Your task to perform on an android device: turn off improve location accuracy Image 0: 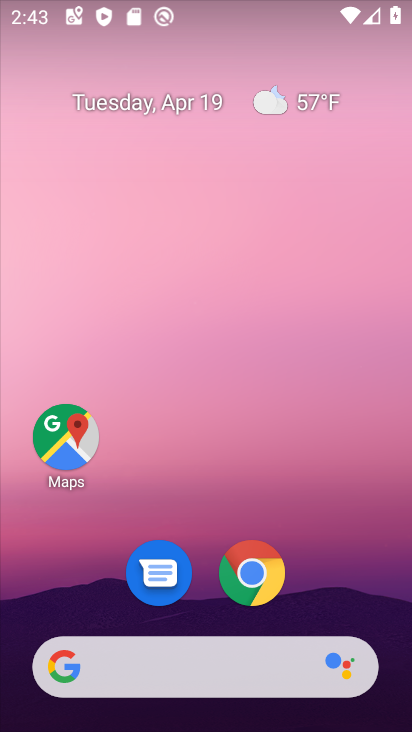
Step 0: drag from (366, 540) to (383, 12)
Your task to perform on an android device: turn off improve location accuracy Image 1: 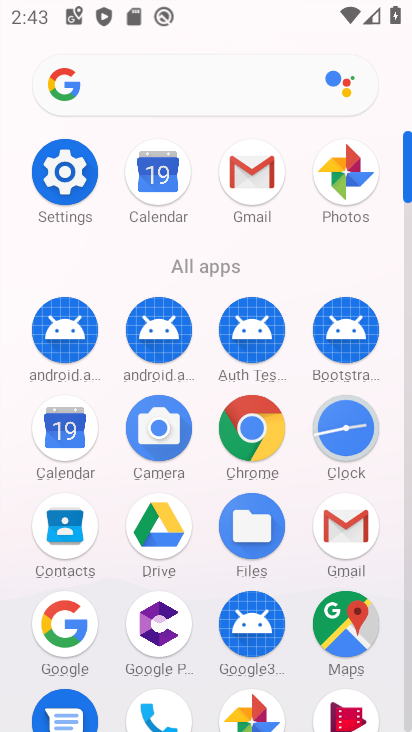
Step 1: click (59, 182)
Your task to perform on an android device: turn off improve location accuracy Image 2: 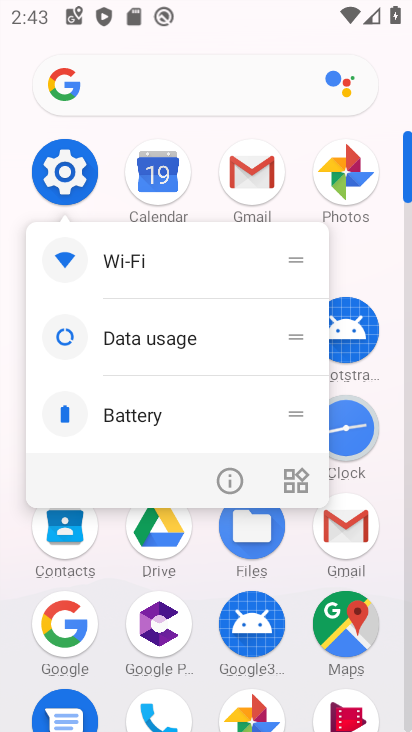
Step 2: click (66, 170)
Your task to perform on an android device: turn off improve location accuracy Image 3: 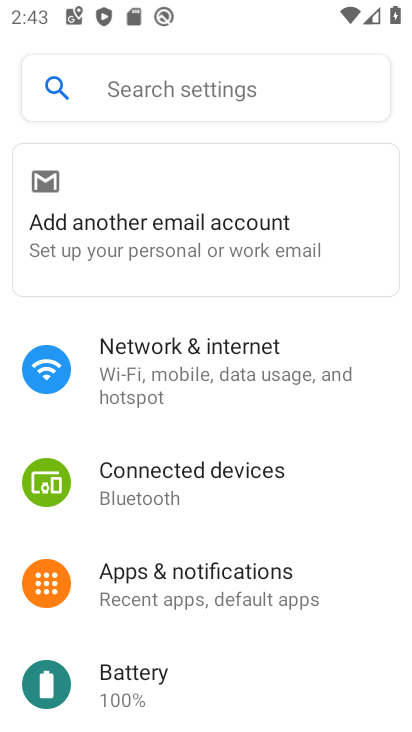
Step 3: drag from (352, 593) to (334, 254)
Your task to perform on an android device: turn off improve location accuracy Image 4: 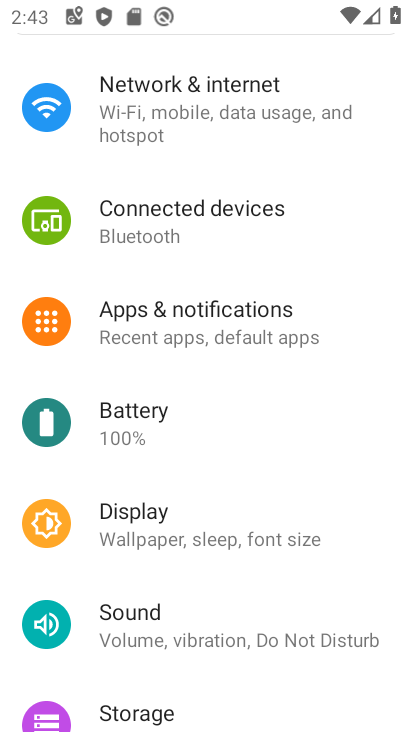
Step 4: drag from (281, 534) to (300, 223)
Your task to perform on an android device: turn off improve location accuracy Image 5: 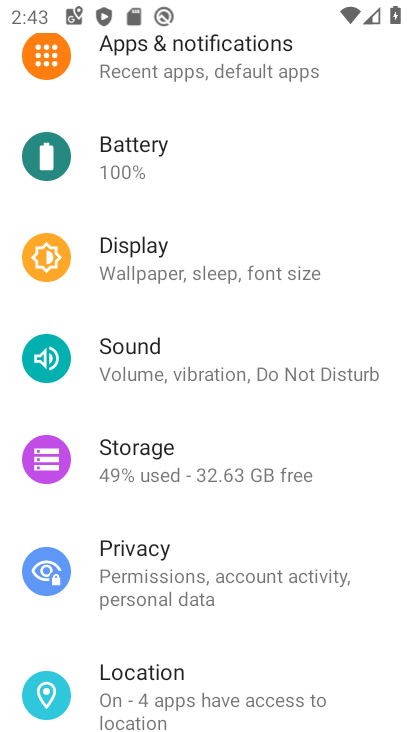
Step 5: click (165, 687)
Your task to perform on an android device: turn off improve location accuracy Image 6: 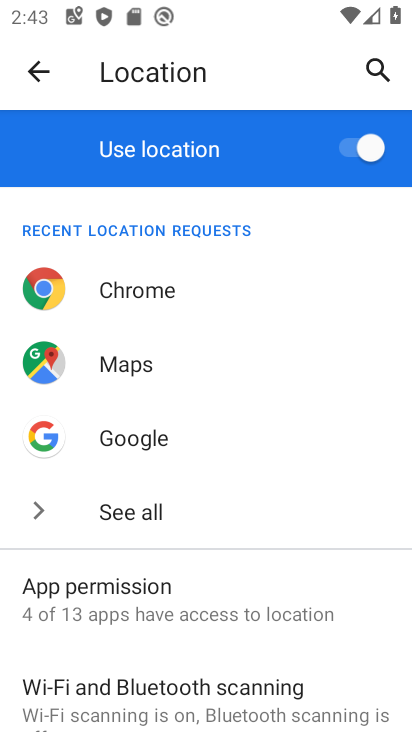
Step 6: drag from (269, 635) to (269, 412)
Your task to perform on an android device: turn off improve location accuracy Image 7: 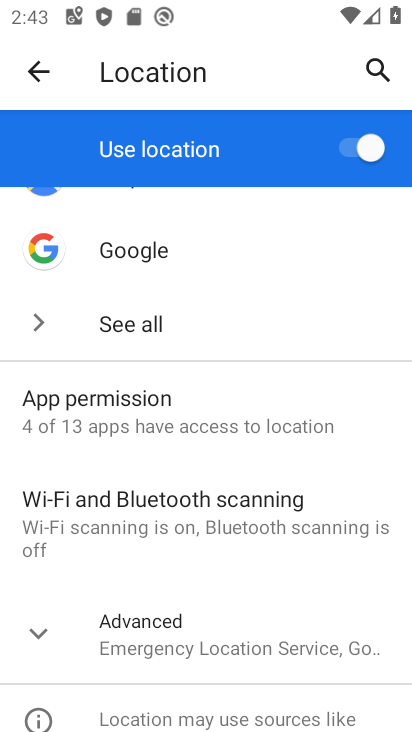
Step 7: click (40, 636)
Your task to perform on an android device: turn off improve location accuracy Image 8: 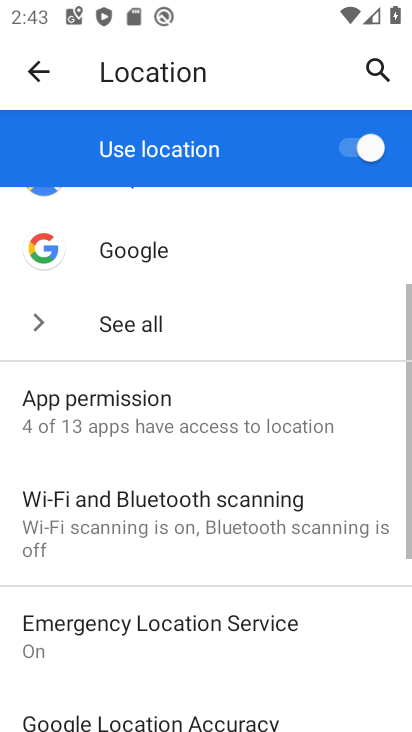
Step 8: drag from (197, 619) to (142, 270)
Your task to perform on an android device: turn off improve location accuracy Image 9: 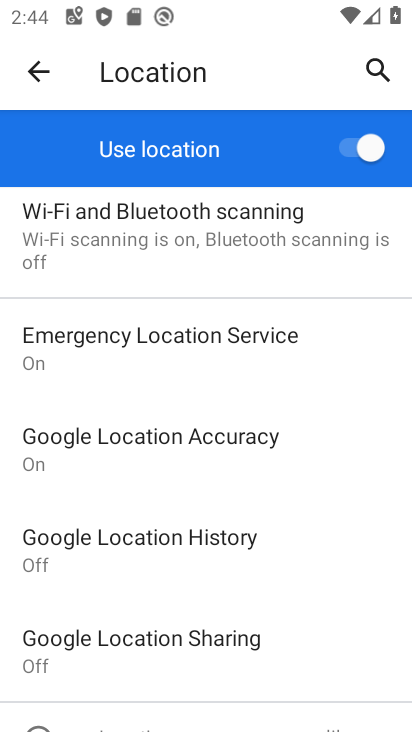
Step 9: click (118, 444)
Your task to perform on an android device: turn off improve location accuracy Image 10: 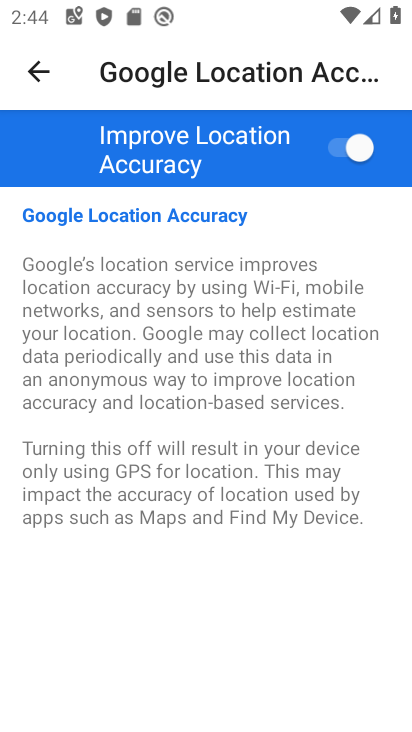
Step 10: click (349, 155)
Your task to perform on an android device: turn off improve location accuracy Image 11: 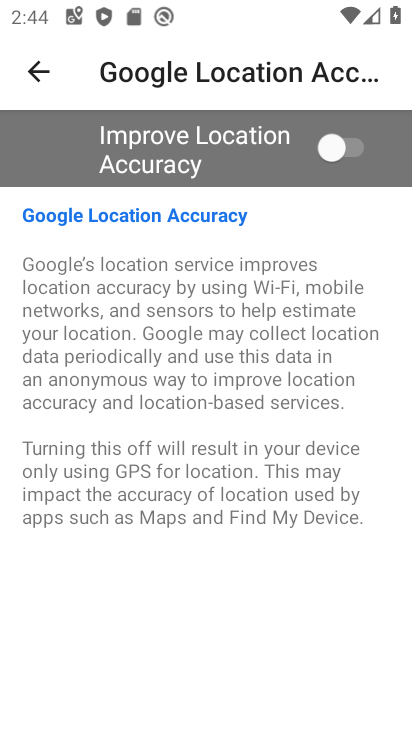
Step 11: task complete